Your task to perform on an android device: toggle priority inbox in the gmail app Image 0: 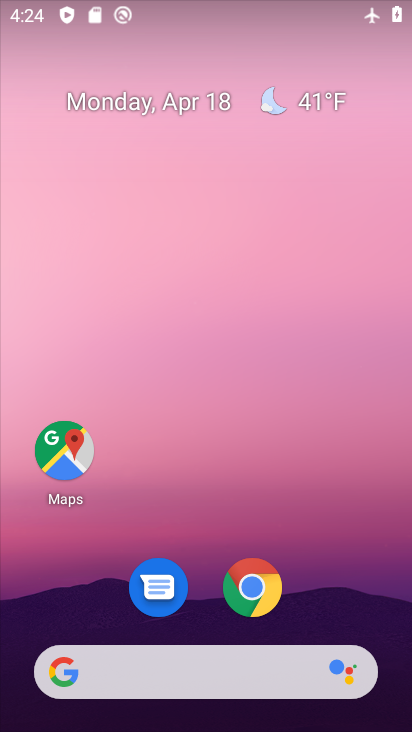
Step 0: drag from (241, 619) to (263, 206)
Your task to perform on an android device: toggle priority inbox in the gmail app Image 1: 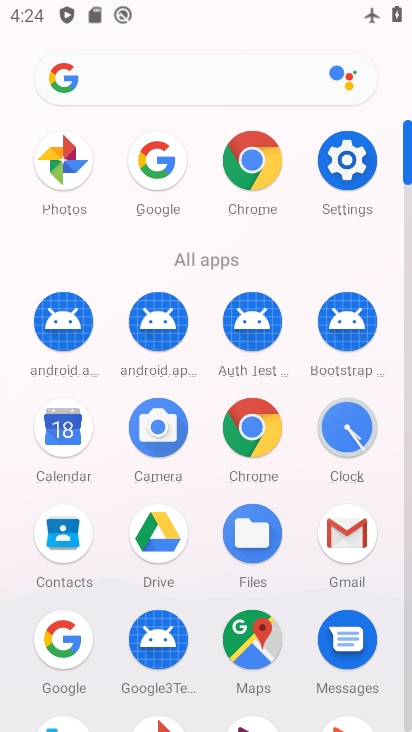
Step 1: drag from (174, 614) to (251, 131)
Your task to perform on an android device: toggle priority inbox in the gmail app Image 2: 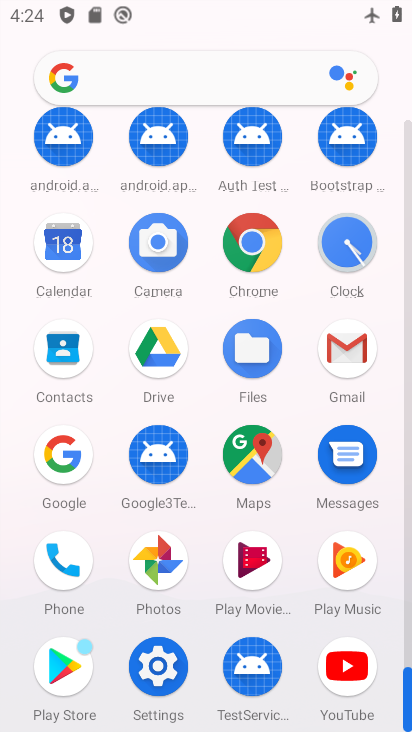
Step 2: click (365, 352)
Your task to perform on an android device: toggle priority inbox in the gmail app Image 3: 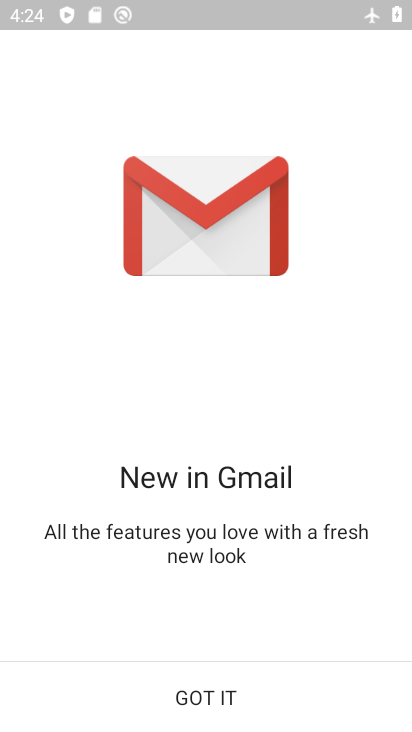
Step 3: click (168, 700)
Your task to perform on an android device: toggle priority inbox in the gmail app Image 4: 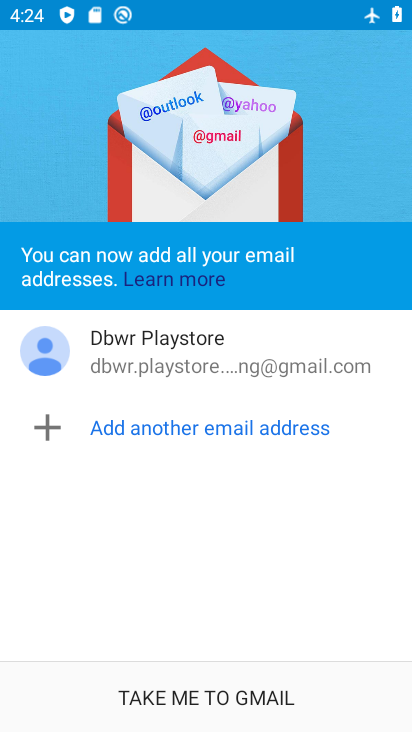
Step 4: click (191, 704)
Your task to perform on an android device: toggle priority inbox in the gmail app Image 5: 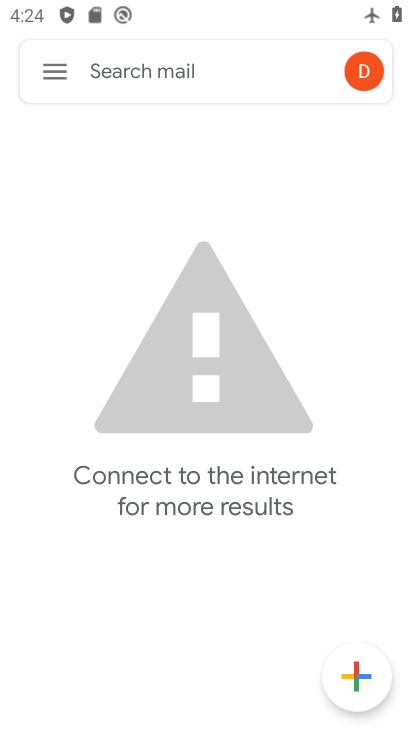
Step 5: click (40, 70)
Your task to perform on an android device: toggle priority inbox in the gmail app Image 6: 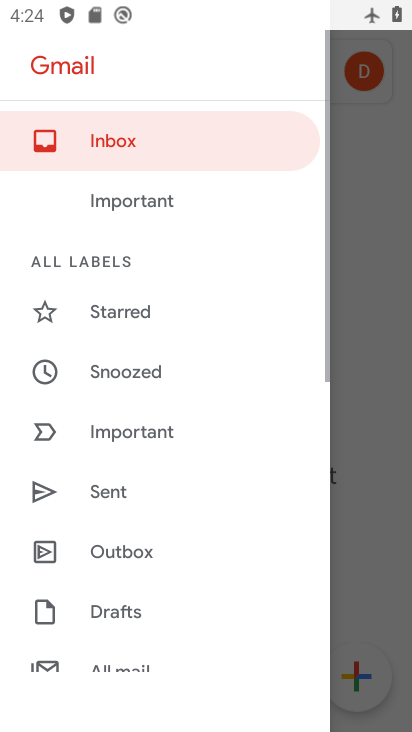
Step 6: drag from (117, 613) to (251, 122)
Your task to perform on an android device: toggle priority inbox in the gmail app Image 7: 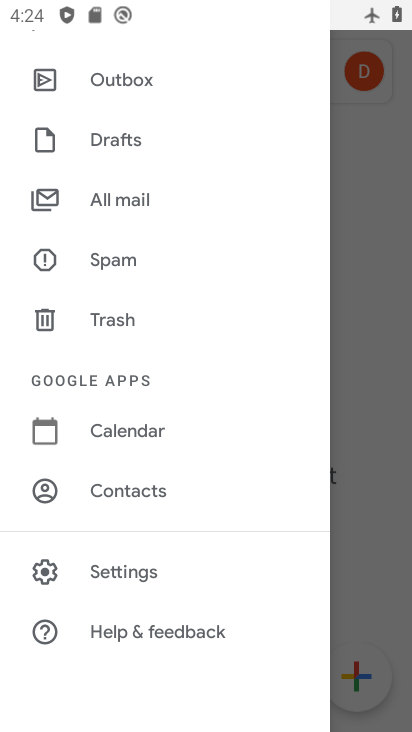
Step 7: click (146, 571)
Your task to perform on an android device: toggle priority inbox in the gmail app Image 8: 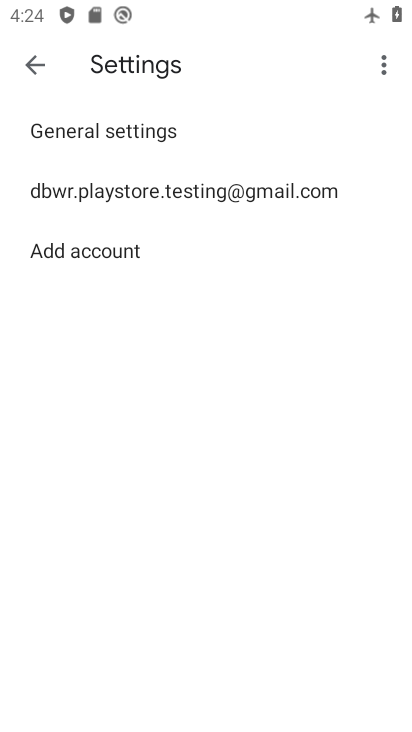
Step 8: click (227, 188)
Your task to perform on an android device: toggle priority inbox in the gmail app Image 9: 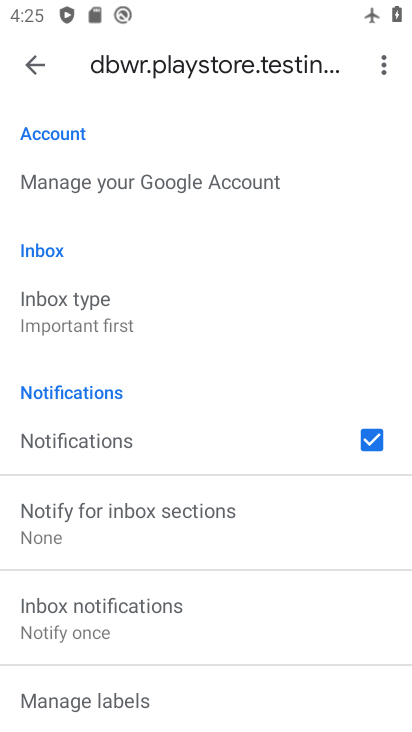
Step 9: click (151, 301)
Your task to perform on an android device: toggle priority inbox in the gmail app Image 10: 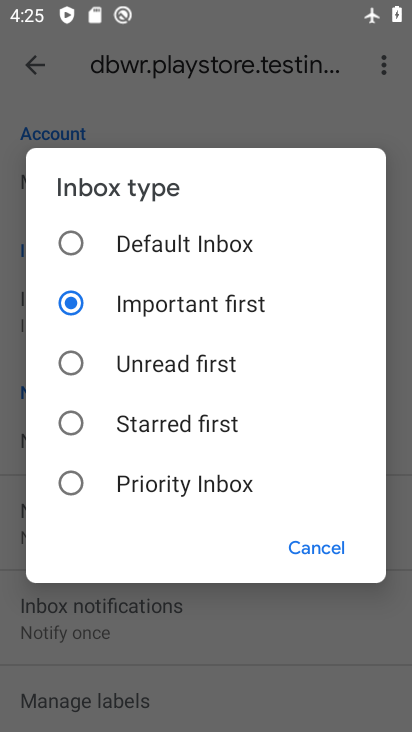
Step 10: click (133, 473)
Your task to perform on an android device: toggle priority inbox in the gmail app Image 11: 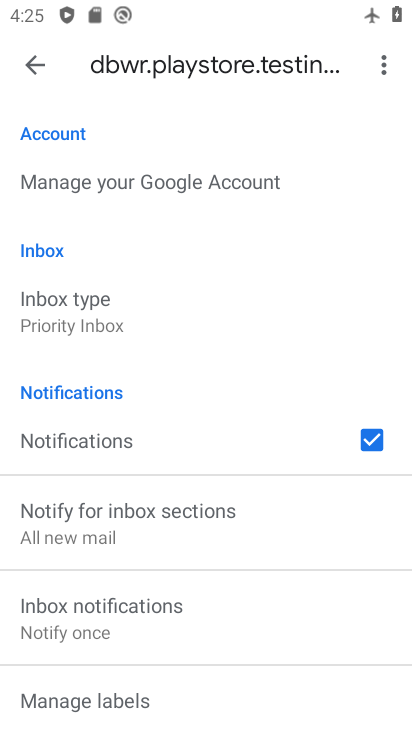
Step 11: task complete